Your task to perform on an android device: show emergency info Image 0: 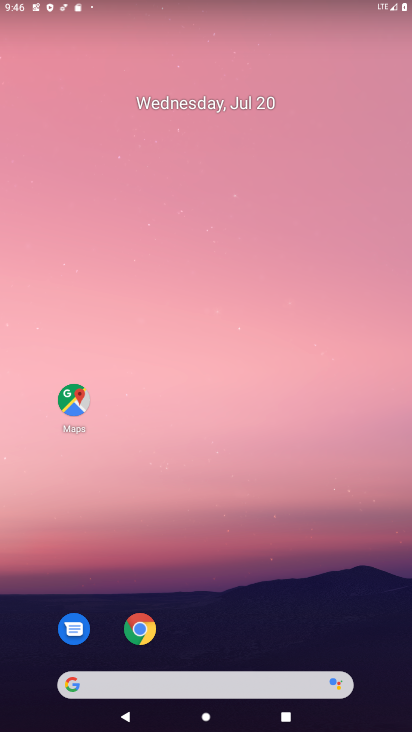
Step 0: press home button
Your task to perform on an android device: show emergency info Image 1: 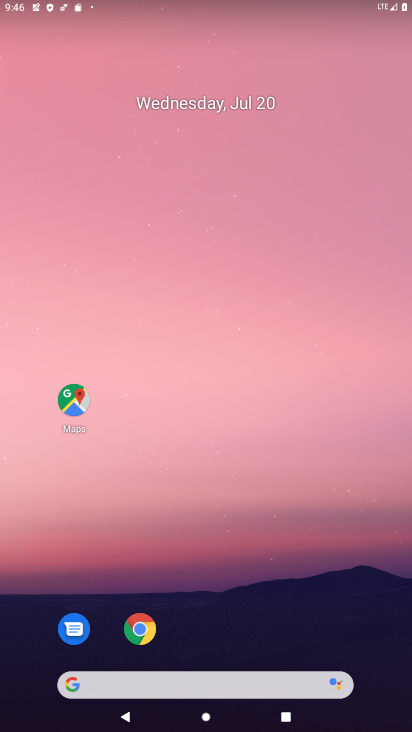
Step 1: drag from (303, 678) to (265, 2)
Your task to perform on an android device: show emergency info Image 2: 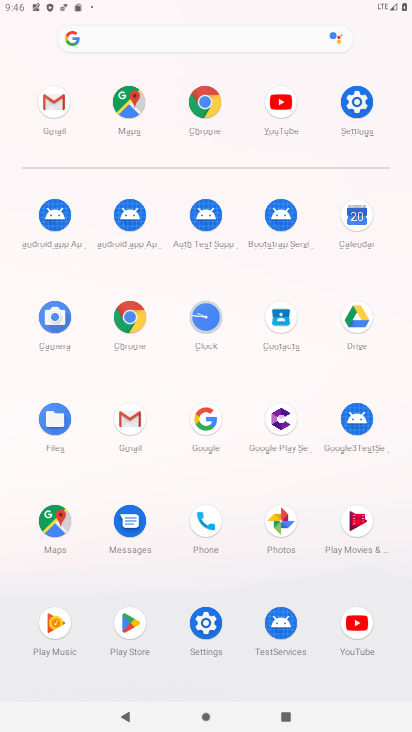
Step 2: click (335, 112)
Your task to perform on an android device: show emergency info Image 3: 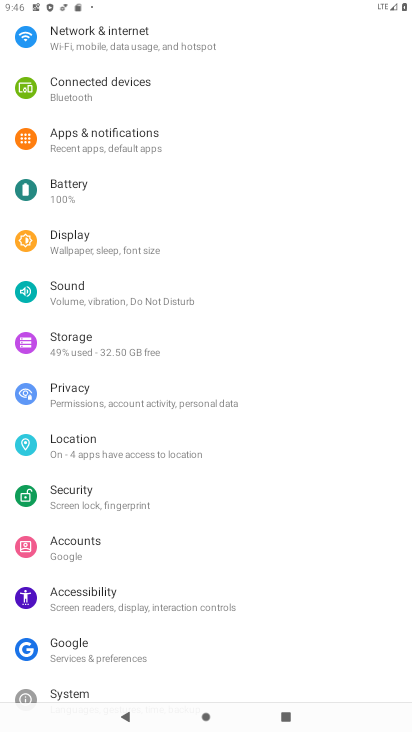
Step 3: drag from (74, 686) to (145, 403)
Your task to perform on an android device: show emergency info Image 4: 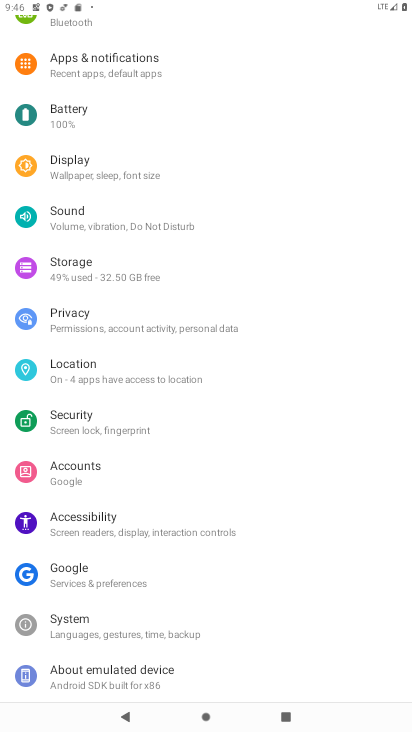
Step 4: click (104, 684)
Your task to perform on an android device: show emergency info Image 5: 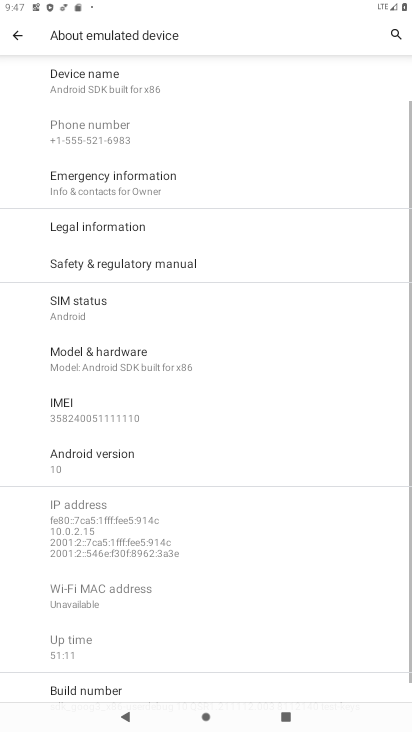
Step 5: click (80, 181)
Your task to perform on an android device: show emergency info Image 6: 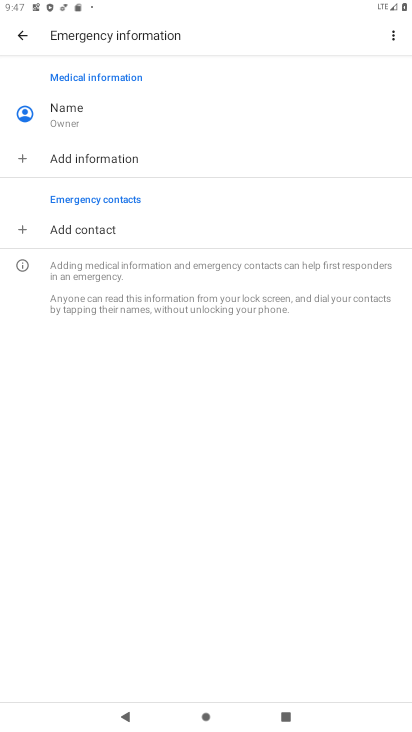
Step 6: task complete